Your task to perform on an android device: What's the weather today? Image 0: 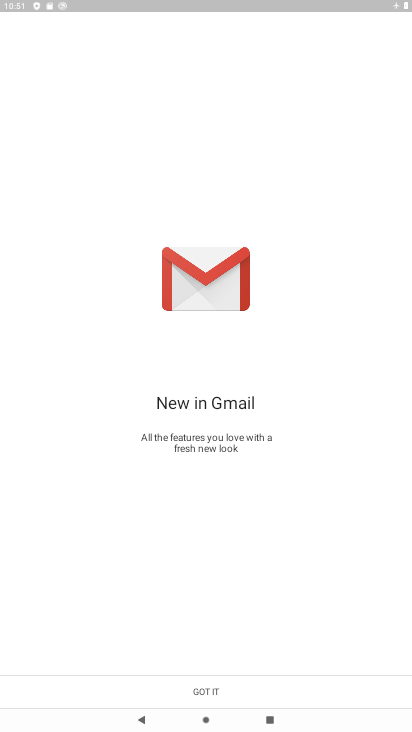
Step 0: press home button
Your task to perform on an android device: What's the weather today? Image 1: 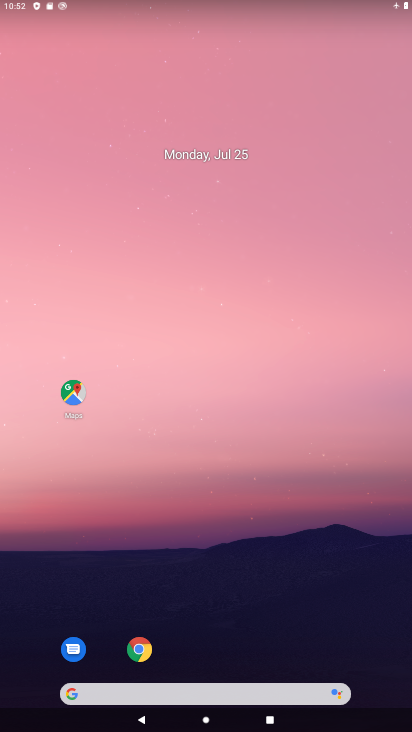
Step 1: click (172, 694)
Your task to perform on an android device: What's the weather today? Image 2: 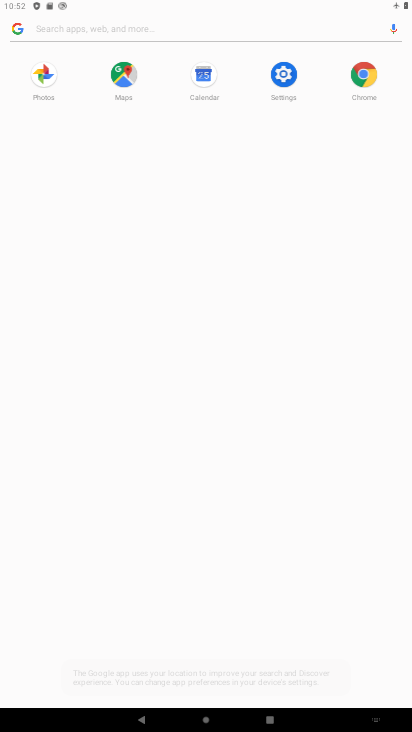
Step 2: click (66, 31)
Your task to perform on an android device: What's the weather today? Image 3: 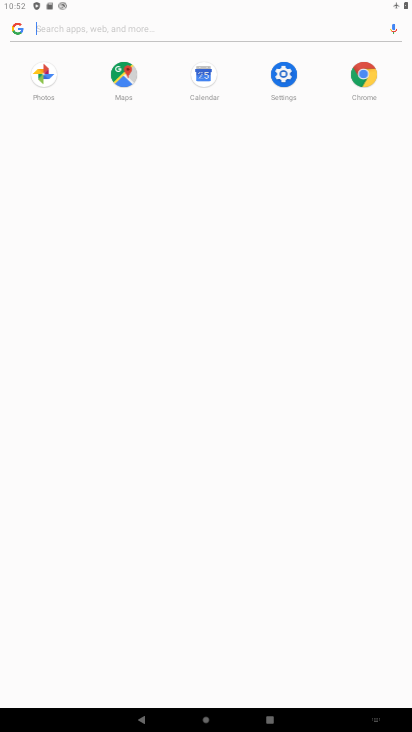
Step 3: type "weather "
Your task to perform on an android device: What's the weather today? Image 4: 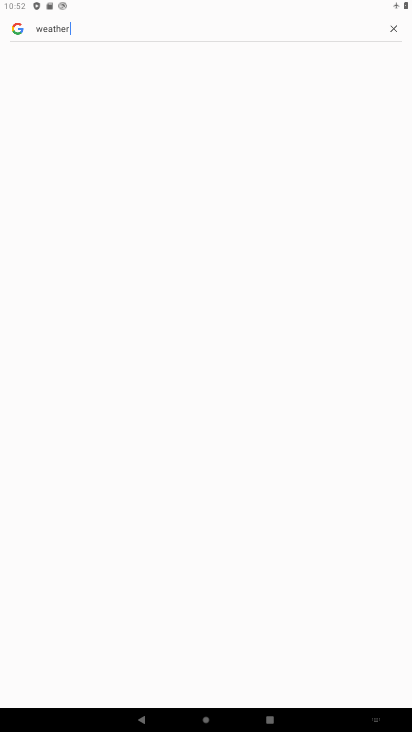
Step 4: task complete